Your task to perform on an android device: turn on javascript in the chrome app Image 0: 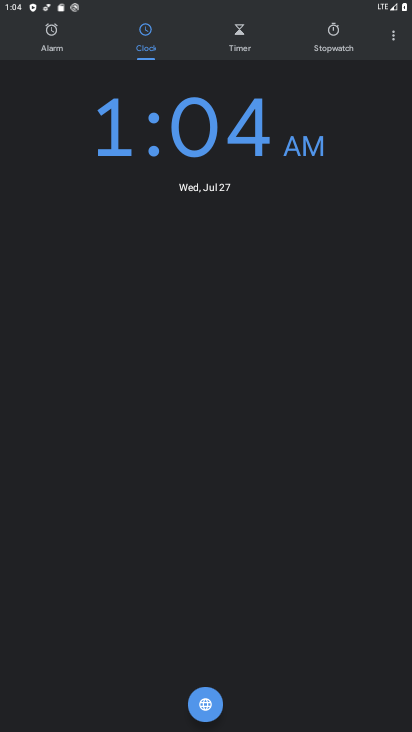
Step 0: press home button
Your task to perform on an android device: turn on javascript in the chrome app Image 1: 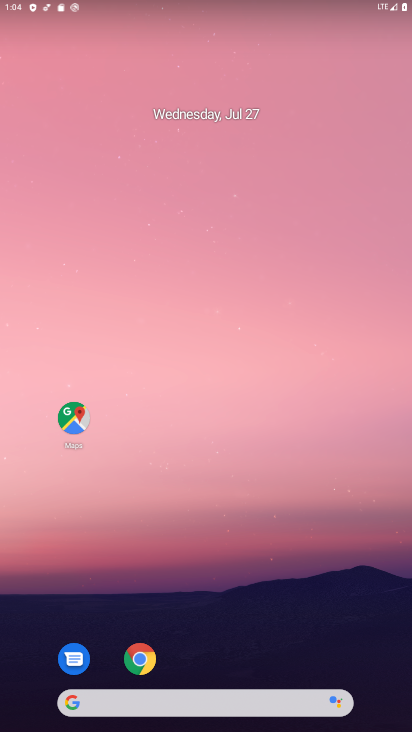
Step 1: click (144, 661)
Your task to perform on an android device: turn on javascript in the chrome app Image 2: 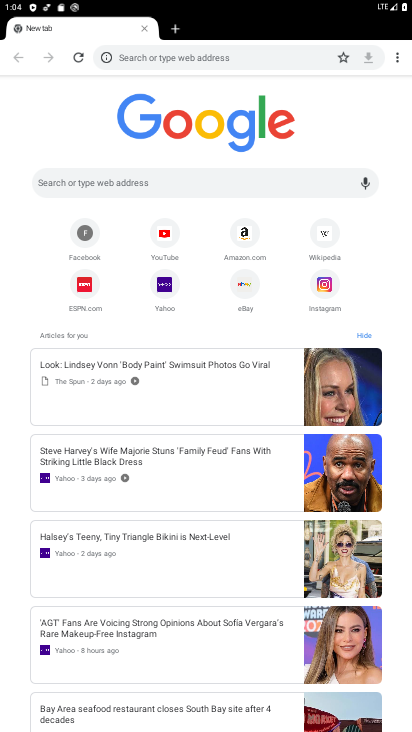
Step 2: click (399, 64)
Your task to perform on an android device: turn on javascript in the chrome app Image 3: 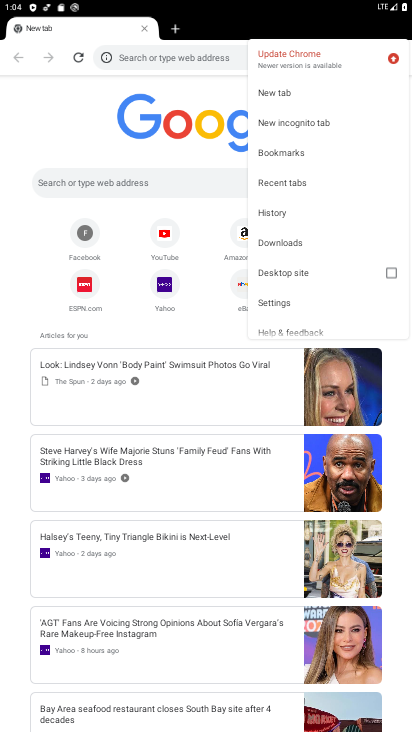
Step 3: click (281, 300)
Your task to perform on an android device: turn on javascript in the chrome app Image 4: 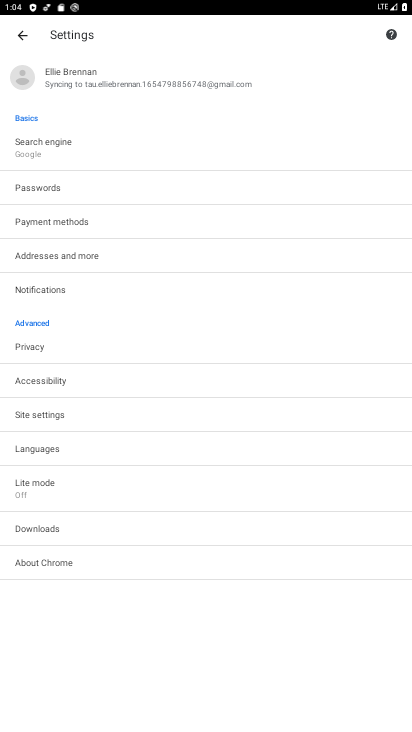
Step 4: click (26, 414)
Your task to perform on an android device: turn on javascript in the chrome app Image 5: 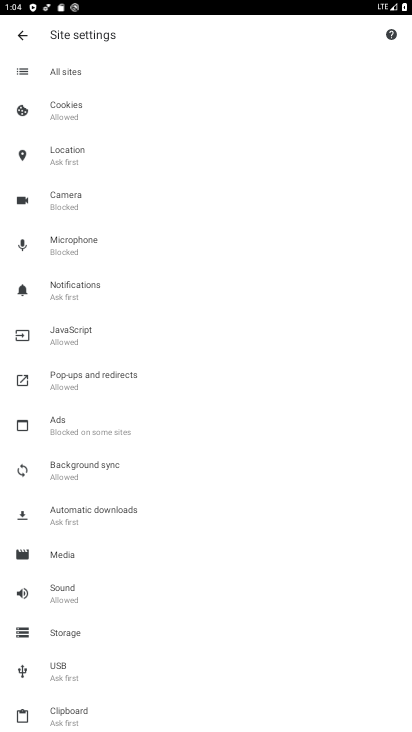
Step 5: click (76, 340)
Your task to perform on an android device: turn on javascript in the chrome app Image 6: 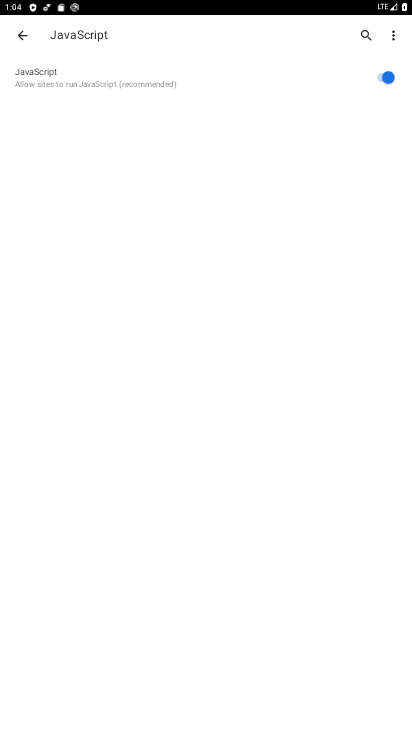
Step 6: task complete